Your task to perform on an android device: Toggle the flashlight Image 0: 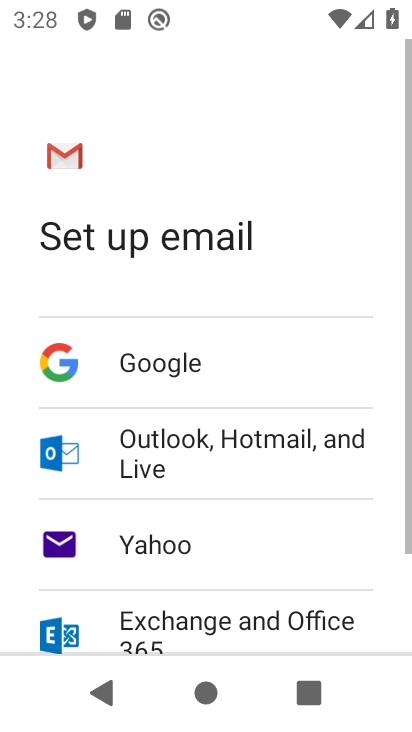
Step 0: press home button
Your task to perform on an android device: Toggle the flashlight Image 1: 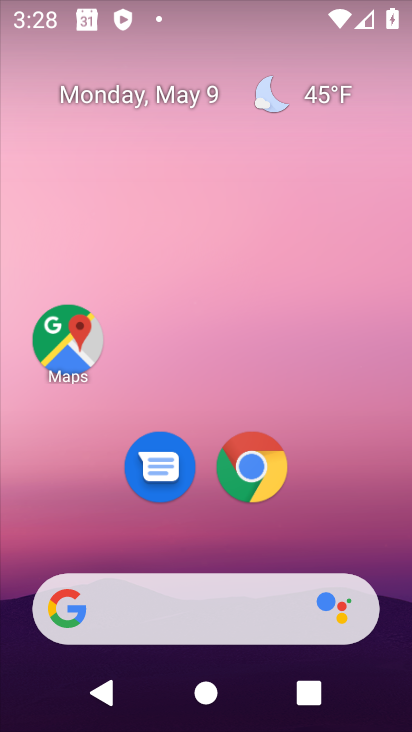
Step 1: drag from (338, 504) to (321, 70)
Your task to perform on an android device: Toggle the flashlight Image 2: 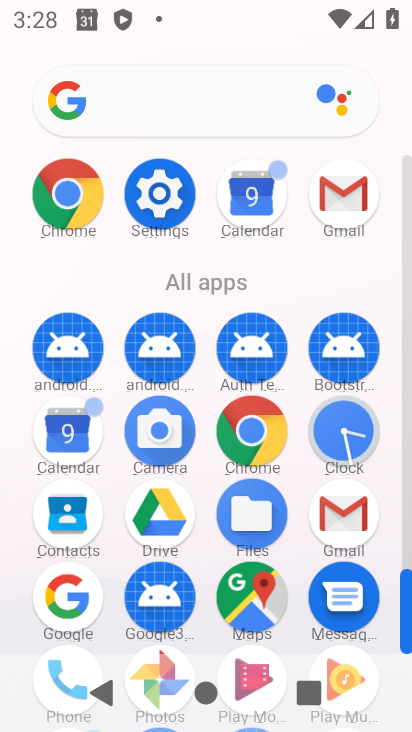
Step 2: click (156, 202)
Your task to perform on an android device: Toggle the flashlight Image 3: 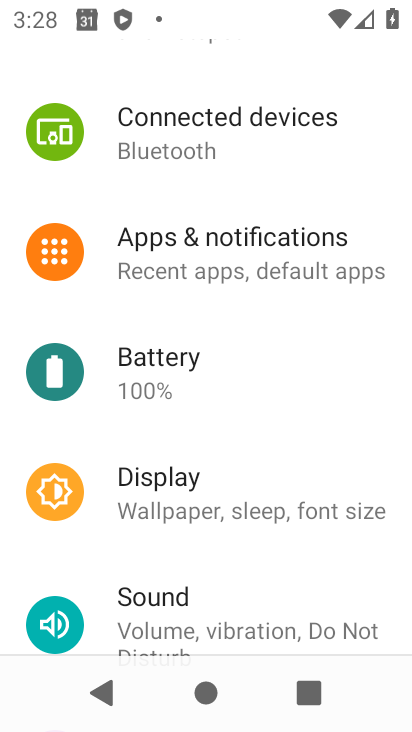
Step 3: drag from (201, 147) to (167, 545)
Your task to perform on an android device: Toggle the flashlight Image 4: 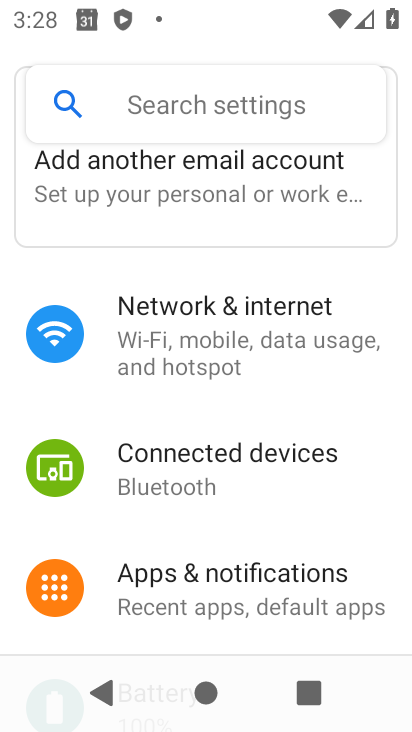
Step 4: drag from (230, 237) to (211, 599)
Your task to perform on an android device: Toggle the flashlight Image 5: 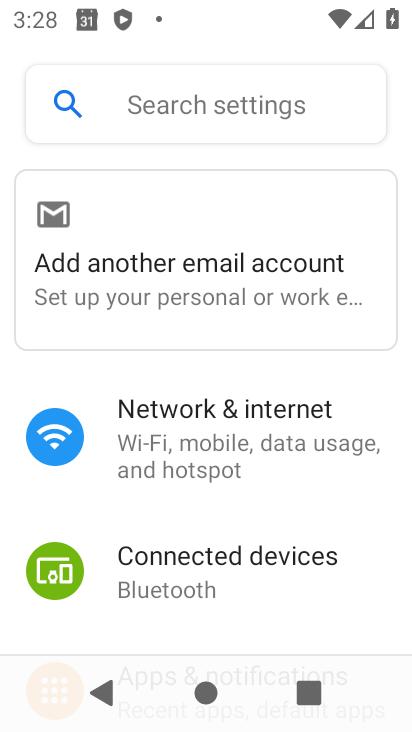
Step 5: click (188, 112)
Your task to perform on an android device: Toggle the flashlight Image 6: 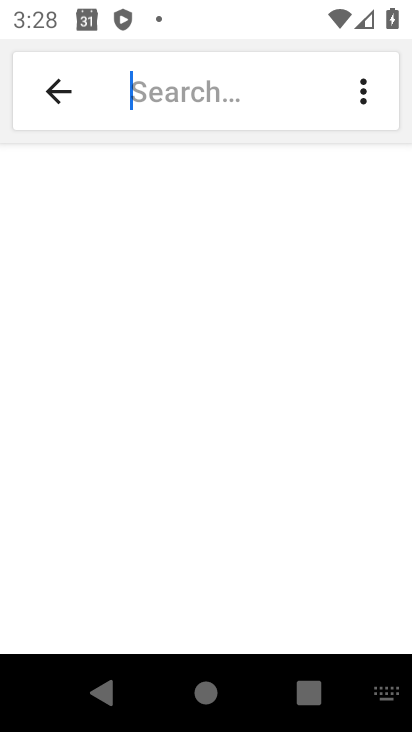
Step 6: type "flashflight"
Your task to perform on an android device: Toggle the flashlight Image 7: 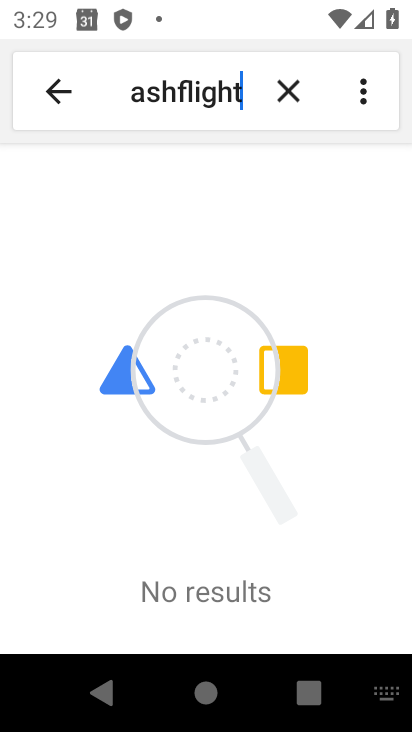
Step 7: click (294, 92)
Your task to perform on an android device: Toggle the flashlight Image 8: 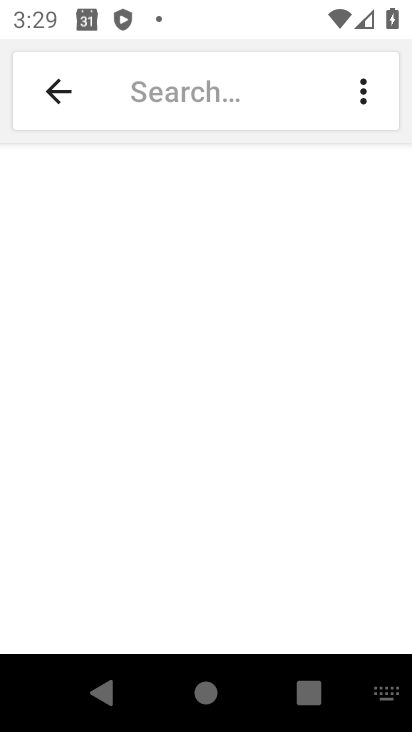
Step 8: type "flashlight"
Your task to perform on an android device: Toggle the flashlight Image 9: 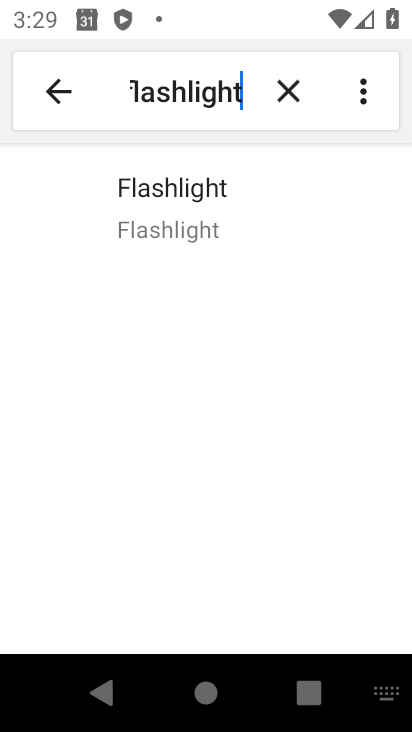
Step 9: click (194, 209)
Your task to perform on an android device: Toggle the flashlight Image 10: 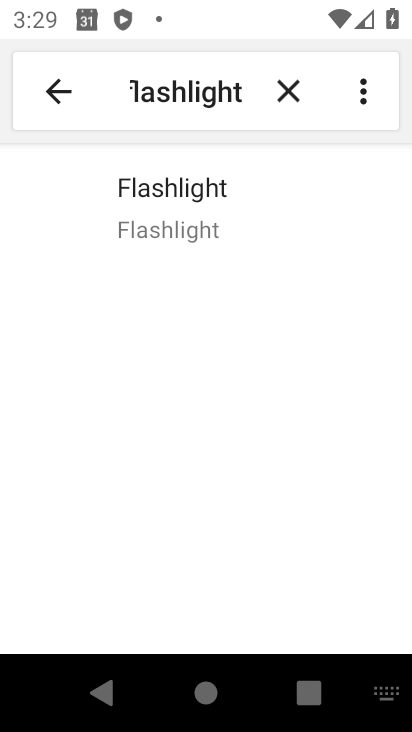
Step 10: task complete